Your task to perform on an android device: open chrome and create a bookmark for the current page Image 0: 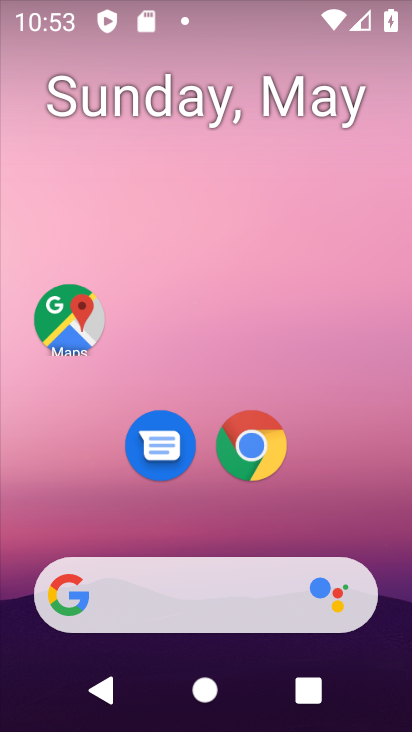
Step 0: click (253, 456)
Your task to perform on an android device: open chrome and create a bookmark for the current page Image 1: 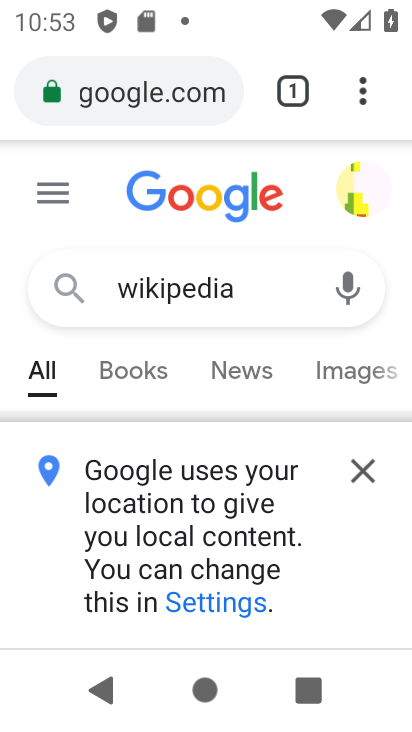
Step 1: click (365, 95)
Your task to perform on an android device: open chrome and create a bookmark for the current page Image 2: 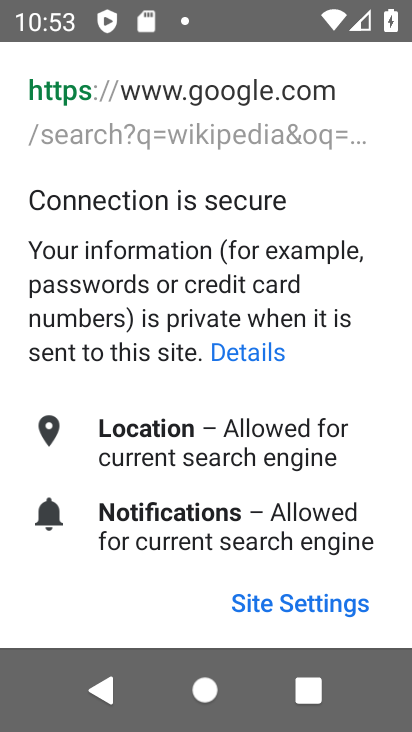
Step 2: click (81, 657)
Your task to perform on an android device: open chrome and create a bookmark for the current page Image 3: 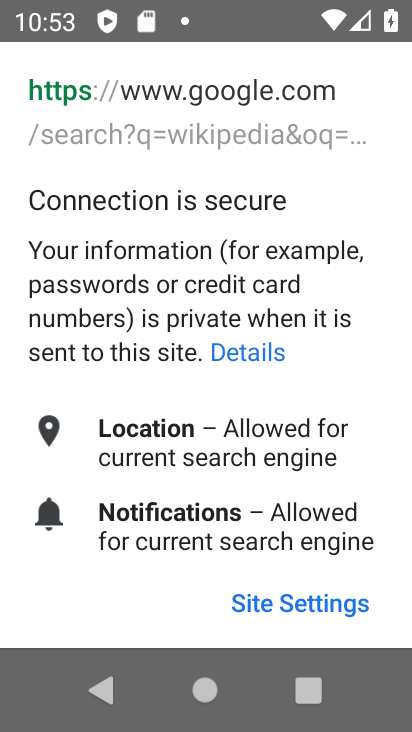
Step 3: click (62, 664)
Your task to perform on an android device: open chrome and create a bookmark for the current page Image 4: 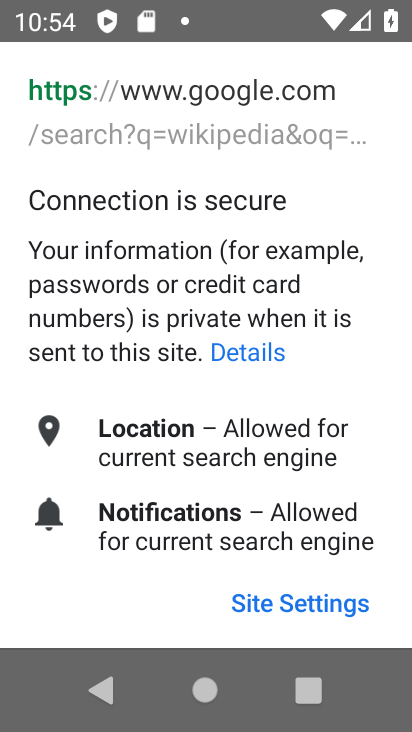
Step 4: click (54, 664)
Your task to perform on an android device: open chrome and create a bookmark for the current page Image 5: 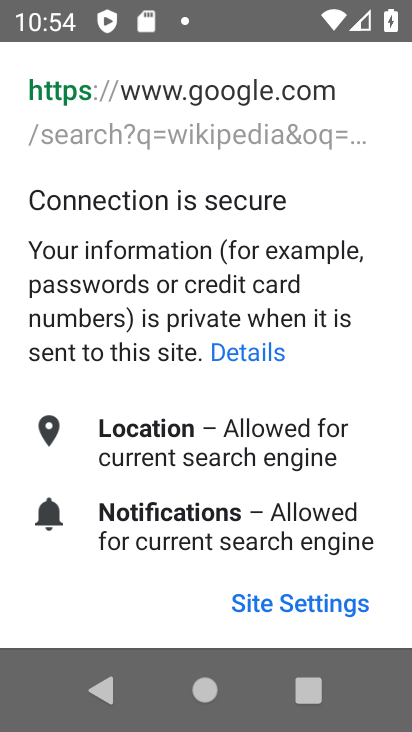
Step 5: click (55, 670)
Your task to perform on an android device: open chrome and create a bookmark for the current page Image 6: 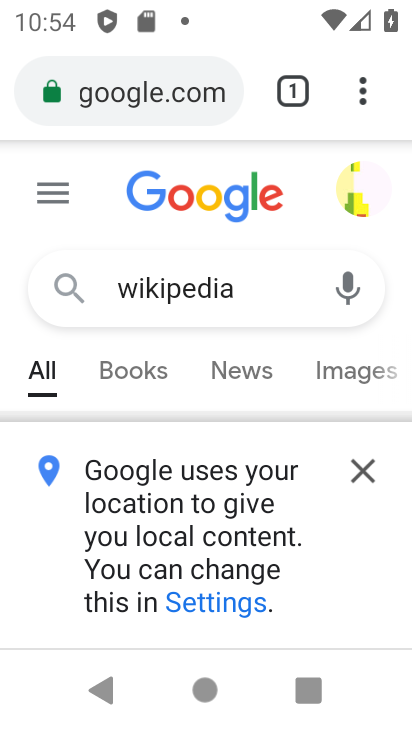
Step 6: click (372, 86)
Your task to perform on an android device: open chrome and create a bookmark for the current page Image 7: 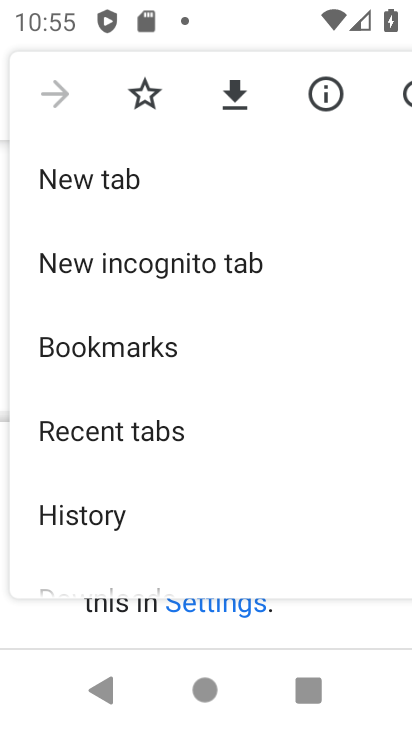
Step 7: click (173, 354)
Your task to perform on an android device: open chrome and create a bookmark for the current page Image 8: 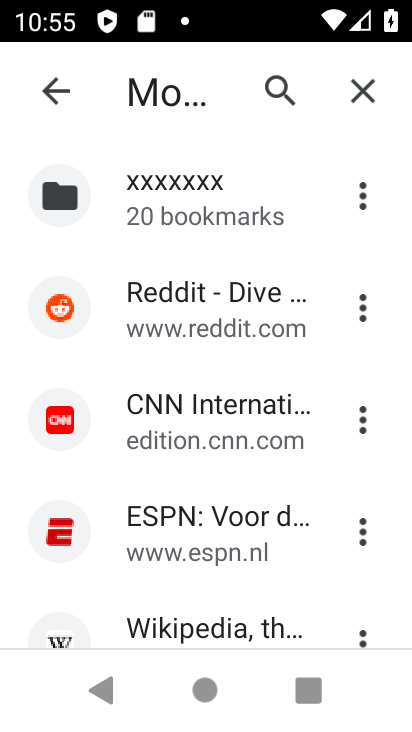
Step 8: task complete